Your task to perform on an android device: Open wifi settings Image 0: 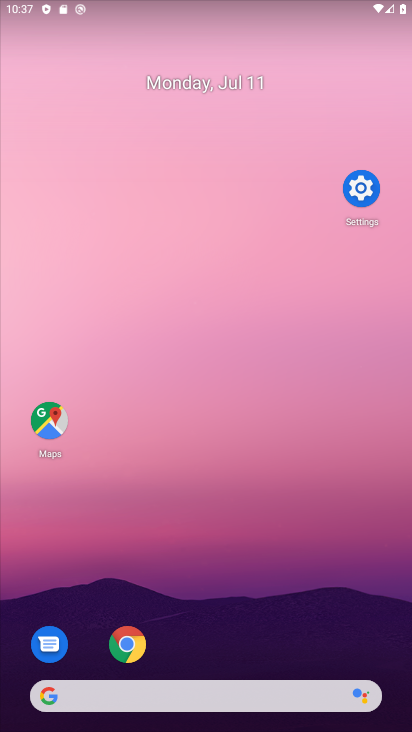
Step 0: click (359, 183)
Your task to perform on an android device: Open wifi settings Image 1: 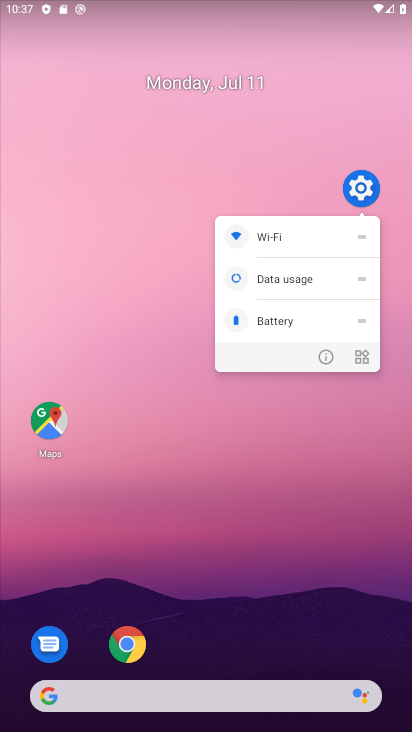
Step 1: click (309, 238)
Your task to perform on an android device: Open wifi settings Image 2: 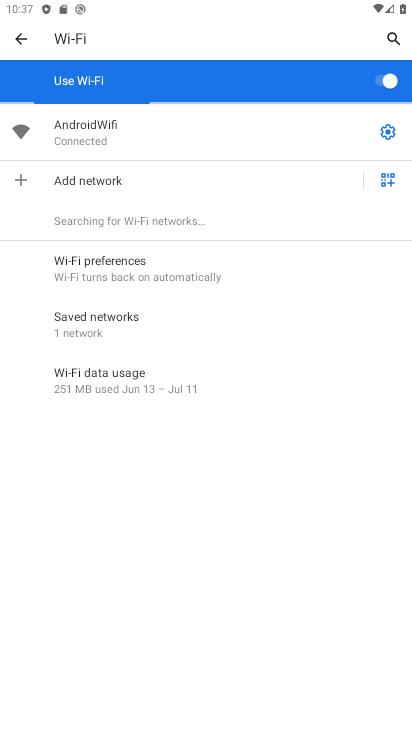
Step 2: task complete